Your task to perform on an android device: Show me productivity apps on the Play Store Image 0: 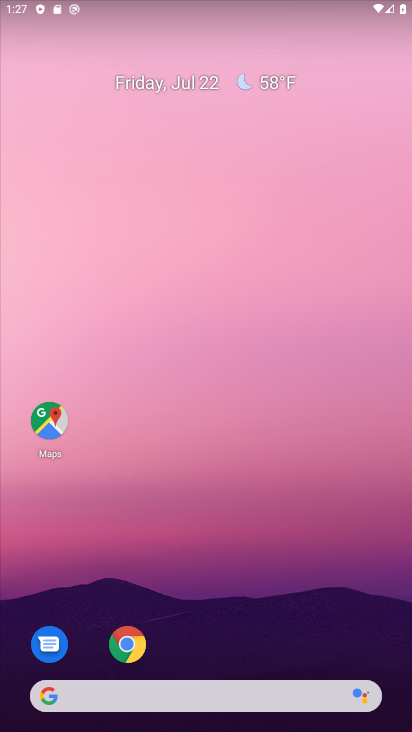
Step 0: drag from (237, 691) to (237, 239)
Your task to perform on an android device: Show me productivity apps on the Play Store Image 1: 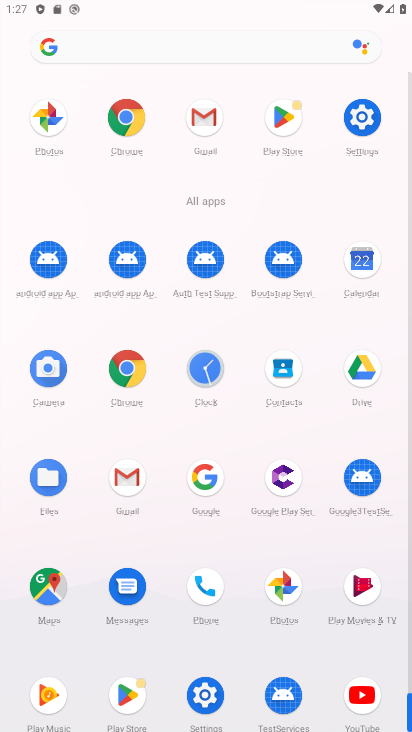
Step 1: click (128, 691)
Your task to perform on an android device: Show me productivity apps on the Play Store Image 2: 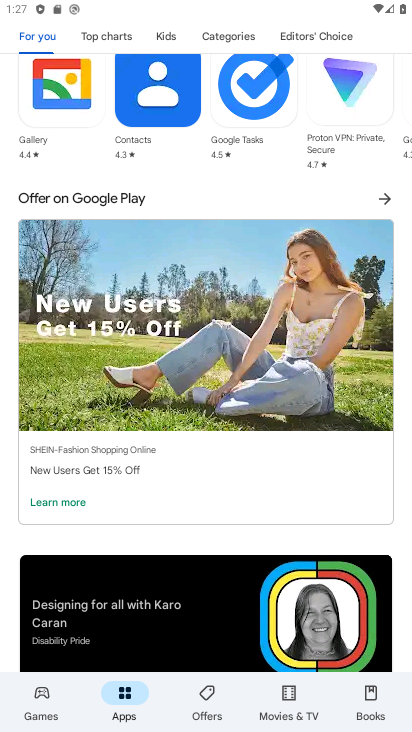
Step 2: task complete